Your task to perform on an android device: Open the stopwatch Image 0: 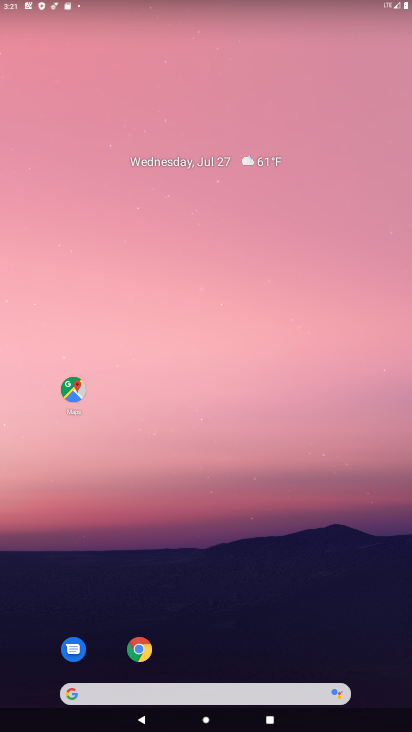
Step 0: press home button
Your task to perform on an android device: Open the stopwatch Image 1: 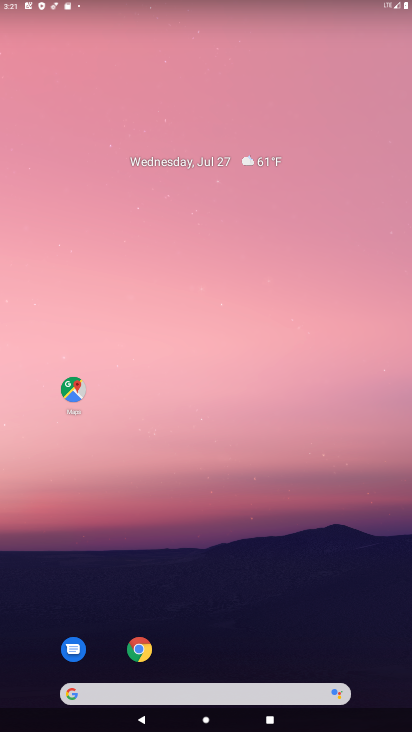
Step 1: drag from (206, 474) to (206, 179)
Your task to perform on an android device: Open the stopwatch Image 2: 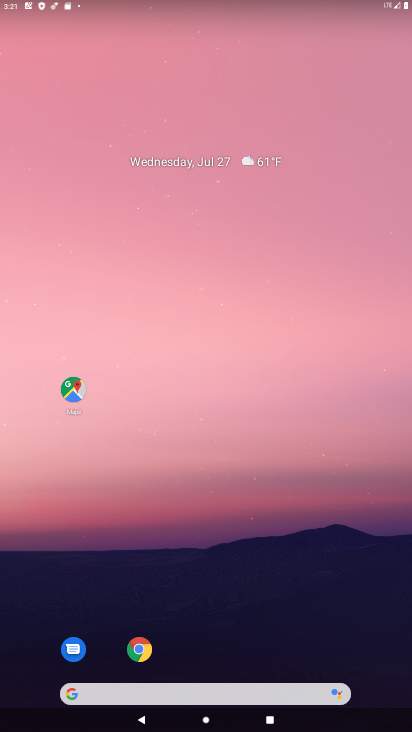
Step 2: drag from (187, 335) to (203, 94)
Your task to perform on an android device: Open the stopwatch Image 3: 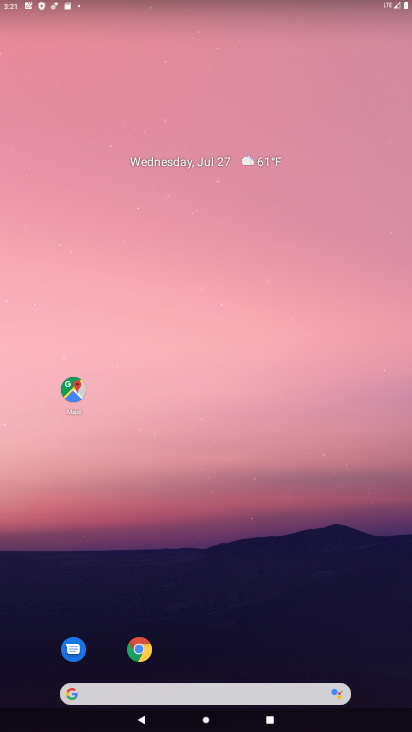
Step 3: drag from (208, 589) to (204, 173)
Your task to perform on an android device: Open the stopwatch Image 4: 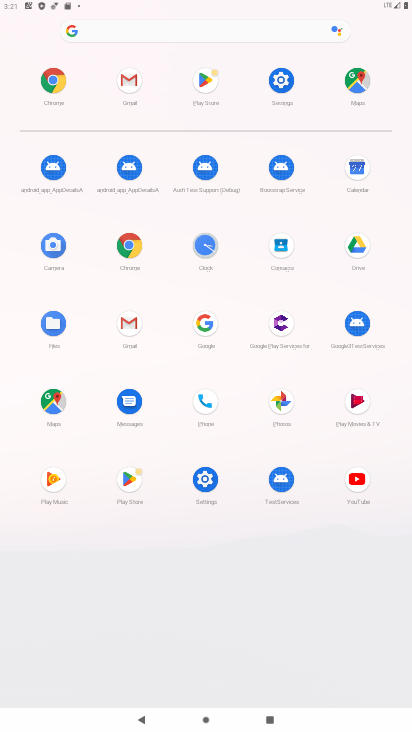
Step 4: click (201, 246)
Your task to perform on an android device: Open the stopwatch Image 5: 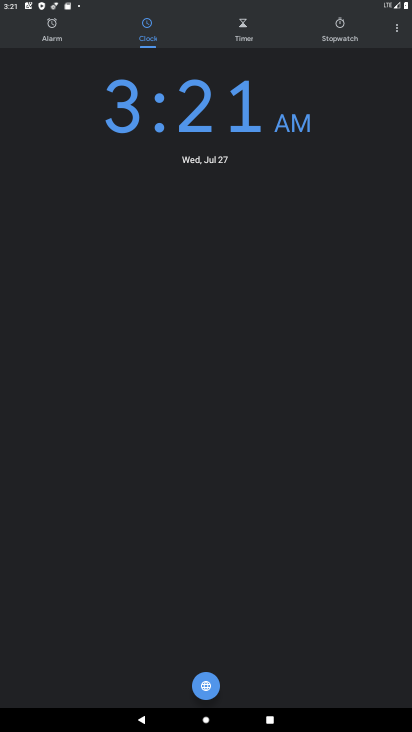
Step 5: click (339, 31)
Your task to perform on an android device: Open the stopwatch Image 6: 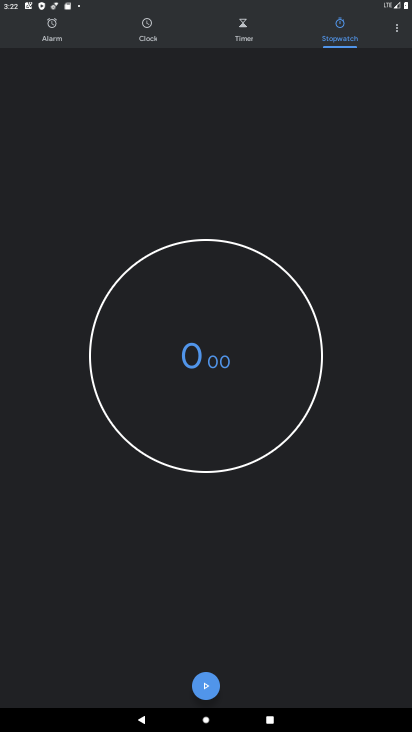
Step 6: task complete